Your task to perform on an android device: turn on airplane mode Image 0: 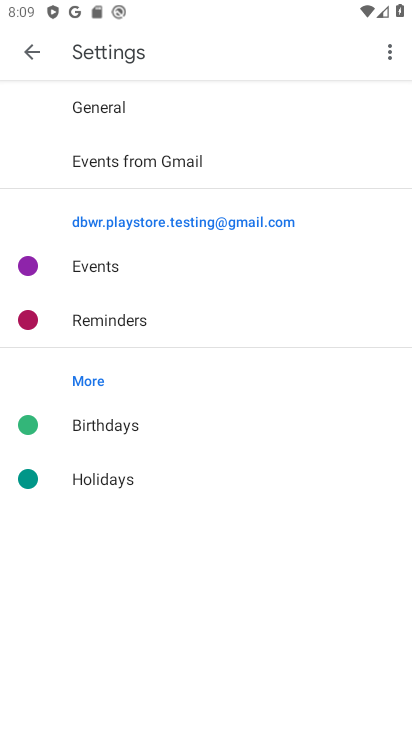
Step 0: press home button
Your task to perform on an android device: turn on airplane mode Image 1: 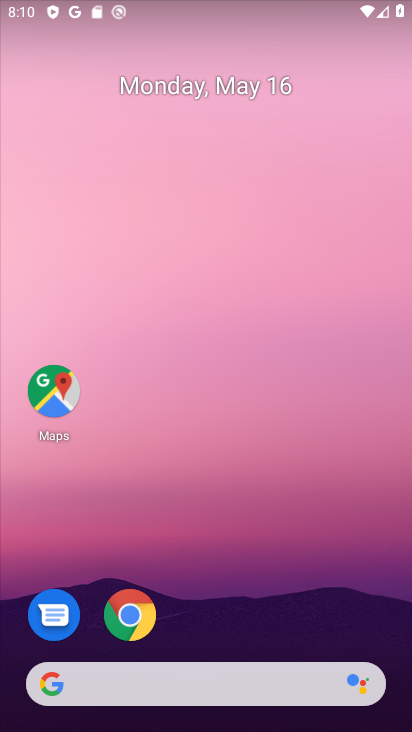
Step 1: drag from (82, 497) to (254, 164)
Your task to perform on an android device: turn on airplane mode Image 2: 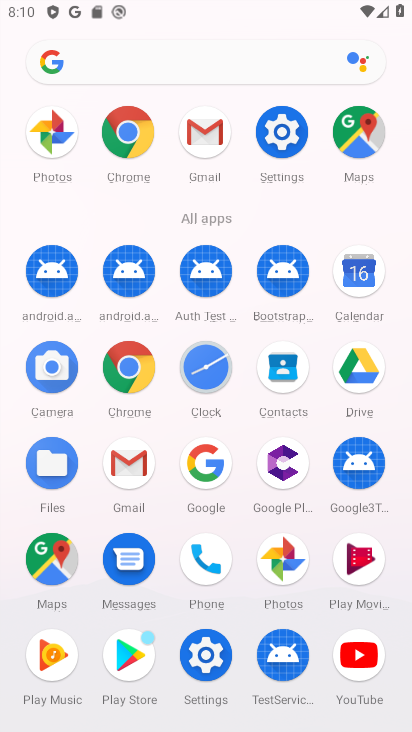
Step 2: click (281, 119)
Your task to perform on an android device: turn on airplane mode Image 3: 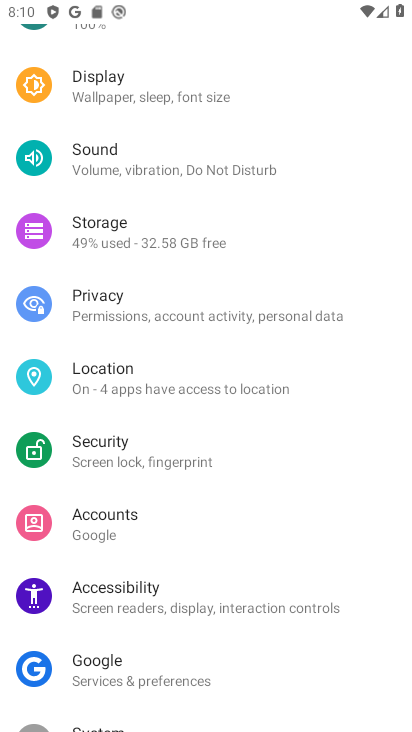
Step 3: drag from (105, 131) to (138, 540)
Your task to perform on an android device: turn on airplane mode Image 4: 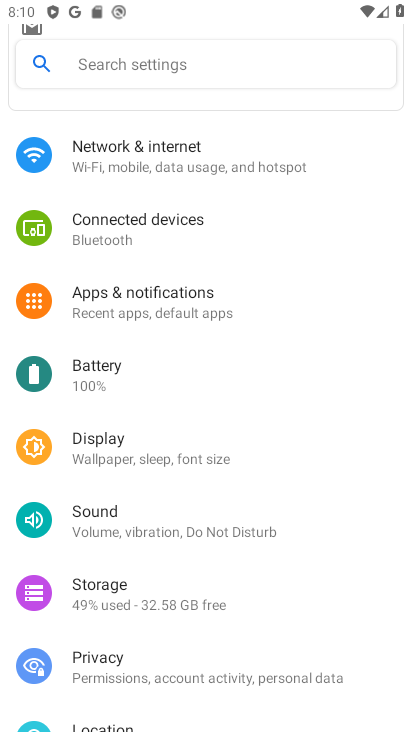
Step 4: click (169, 163)
Your task to perform on an android device: turn on airplane mode Image 5: 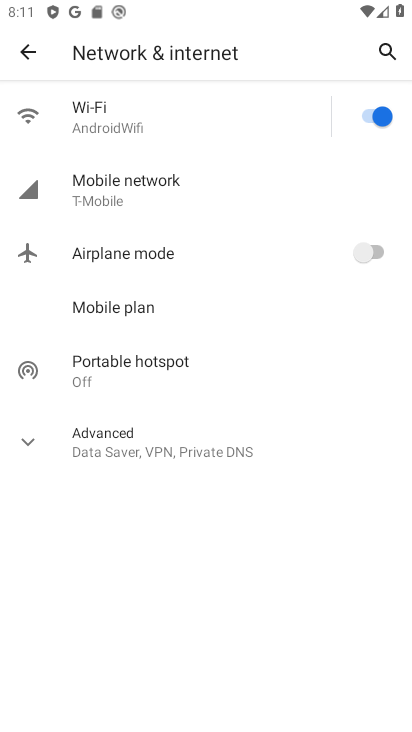
Step 5: click (362, 252)
Your task to perform on an android device: turn on airplane mode Image 6: 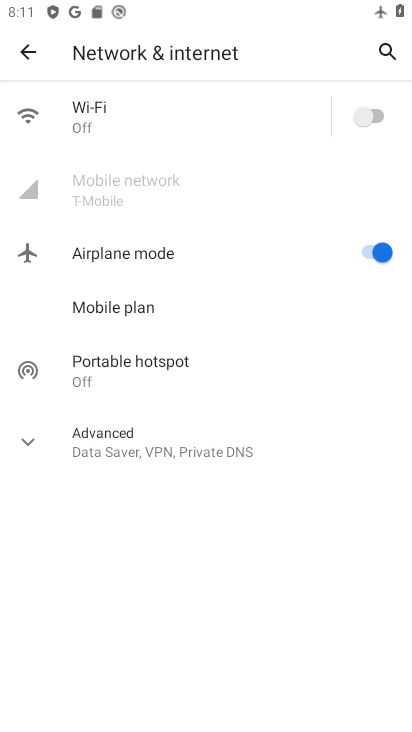
Step 6: task complete